Your task to perform on an android device: What is the news today? Image 0: 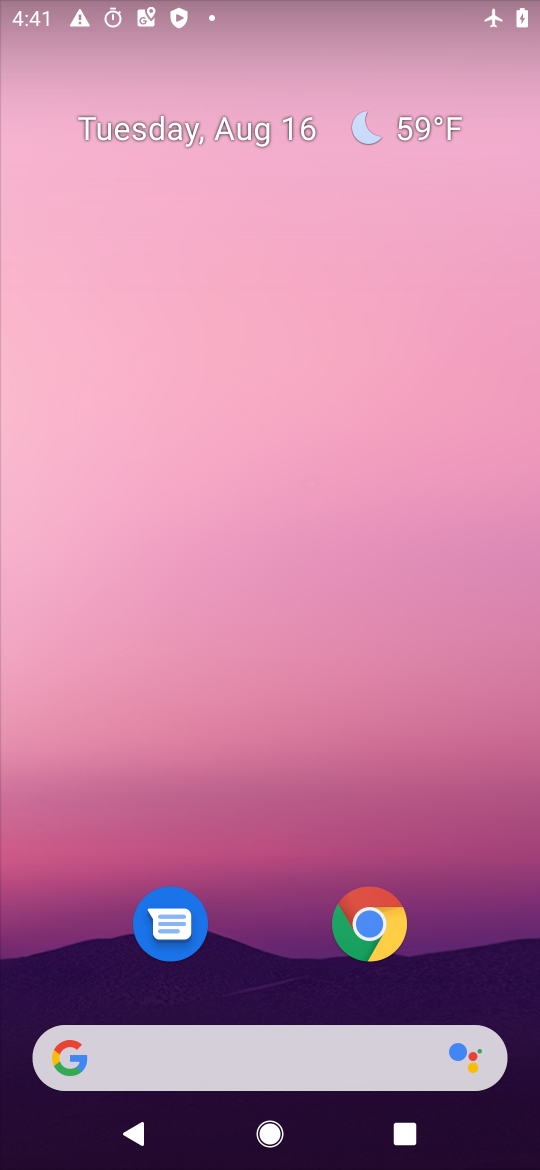
Step 0: click (203, 1064)
Your task to perform on an android device: What is the news today? Image 1: 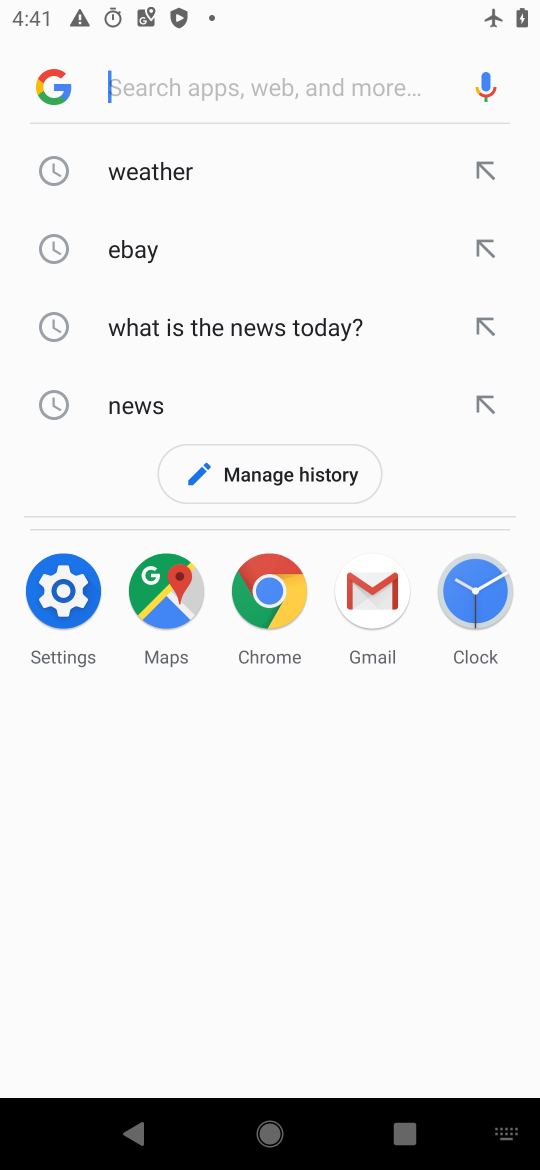
Step 1: click (42, 93)
Your task to perform on an android device: What is the news today? Image 2: 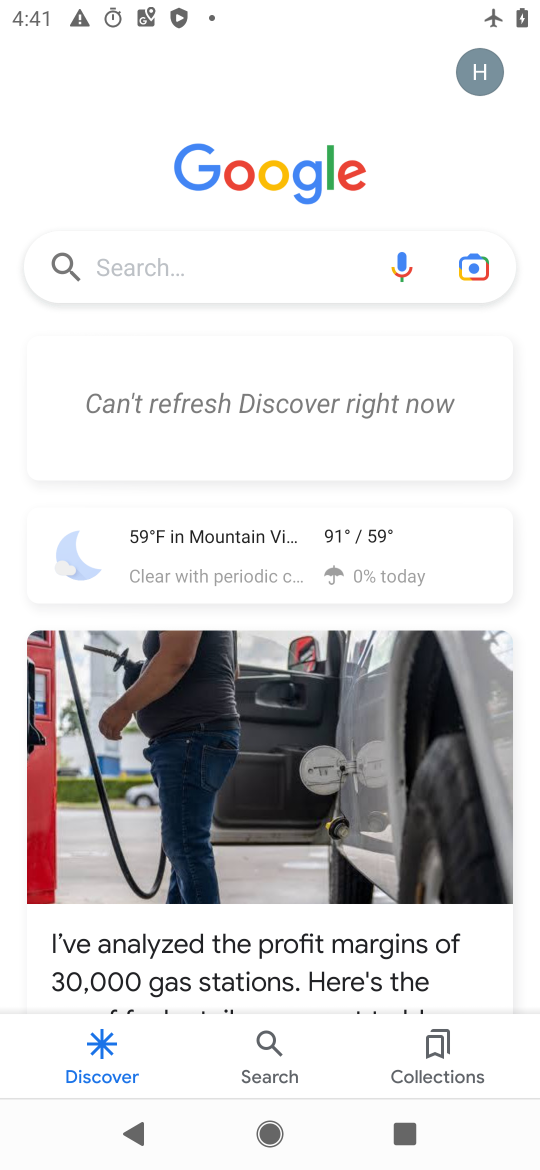
Step 2: drag from (7, 911) to (194, 268)
Your task to perform on an android device: What is the news today? Image 3: 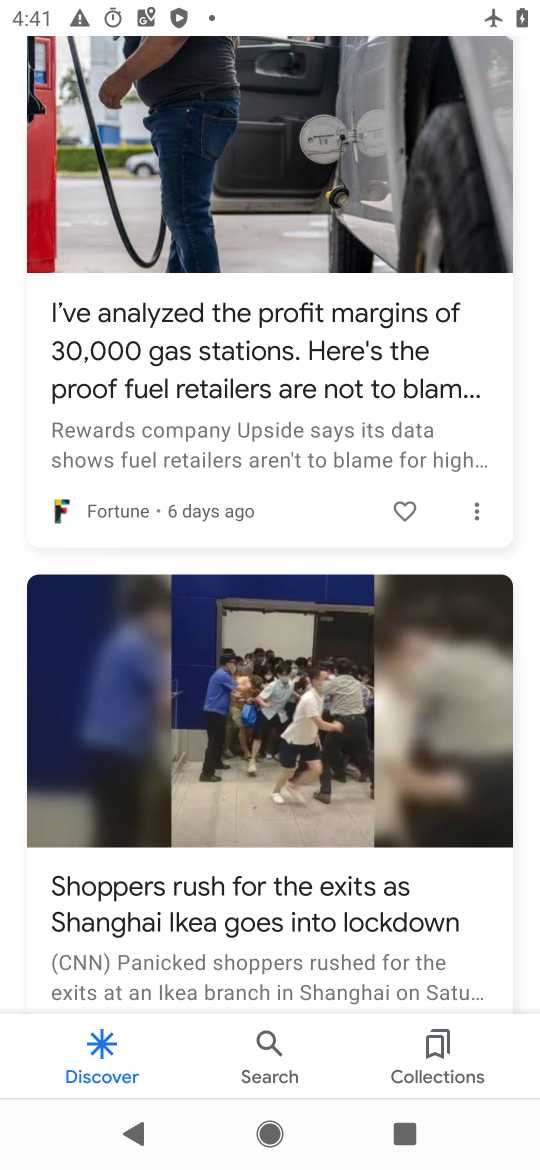
Step 3: drag from (290, 181) to (189, 1127)
Your task to perform on an android device: What is the news today? Image 4: 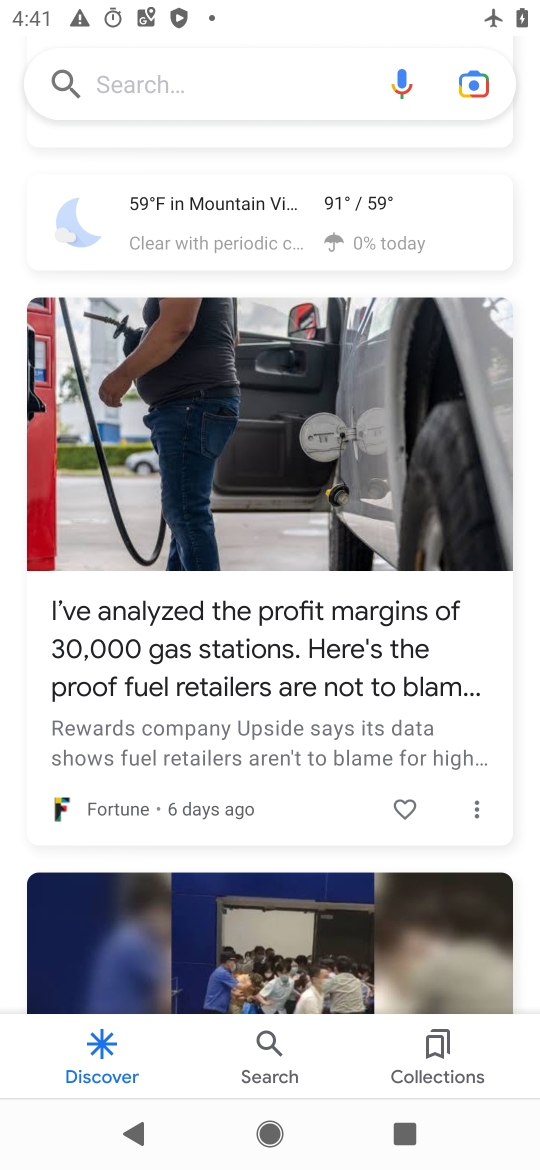
Step 4: click (166, 88)
Your task to perform on an android device: What is the news today? Image 5: 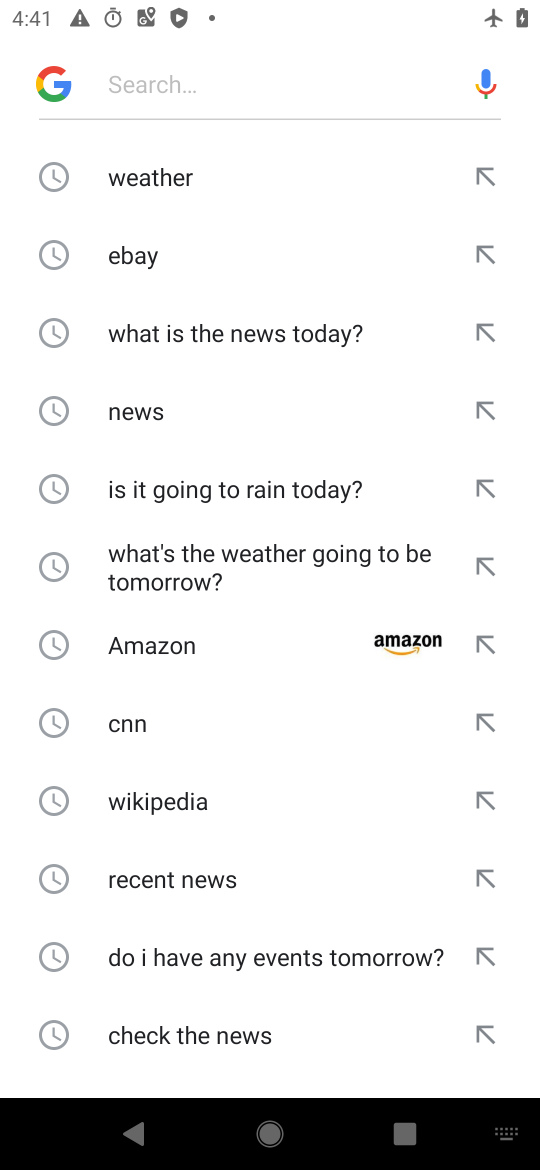
Step 5: click (172, 418)
Your task to perform on an android device: What is the news today? Image 6: 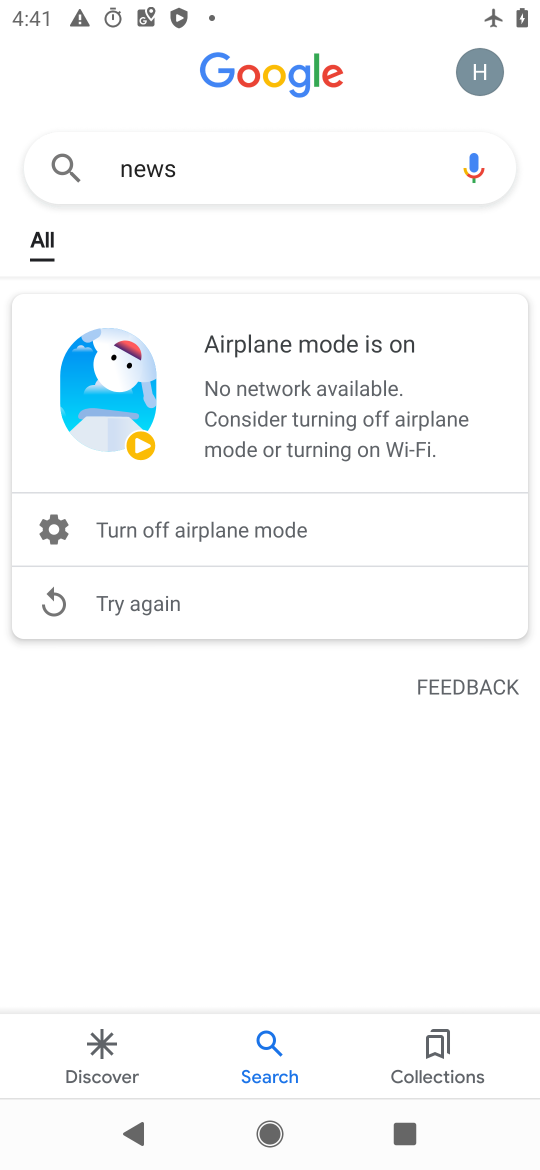
Step 6: drag from (250, 31) to (173, 1051)
Your task to perform on an android device: What is the news today? Image 7: 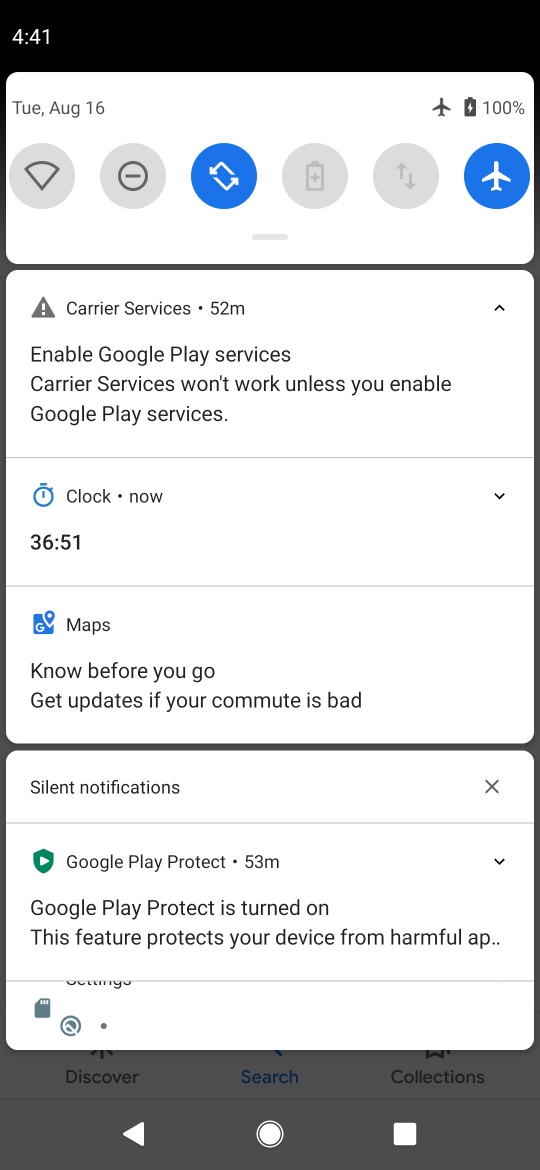
Step 7: click (478, 187)
Your task to perform on an android device: What is the news today? Image 8: 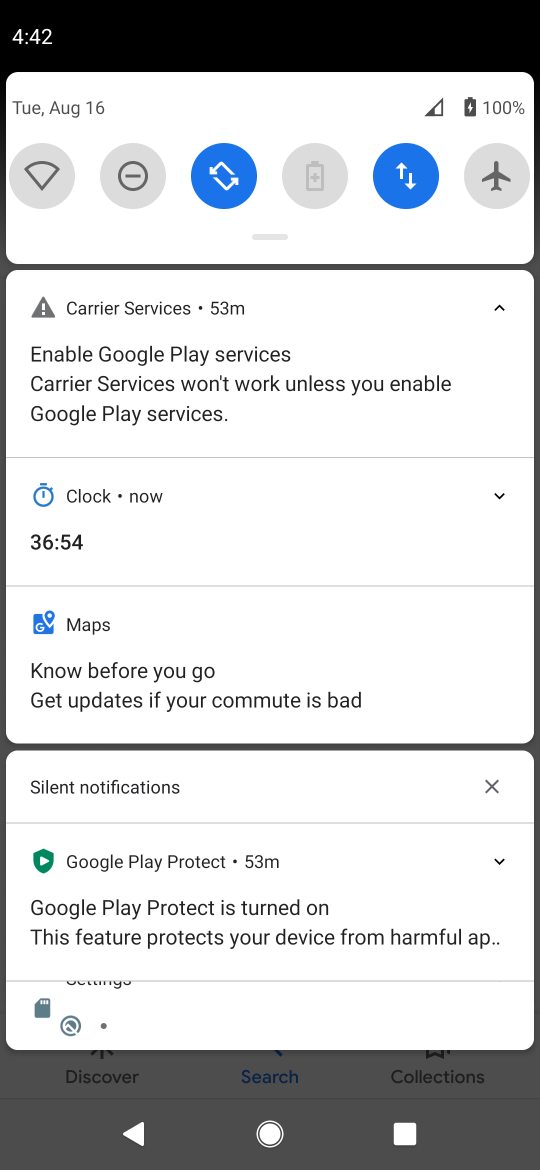
Step 8: task complete